Your task to perform on an android device: delete the emails in spam in the gmail app Image 0: 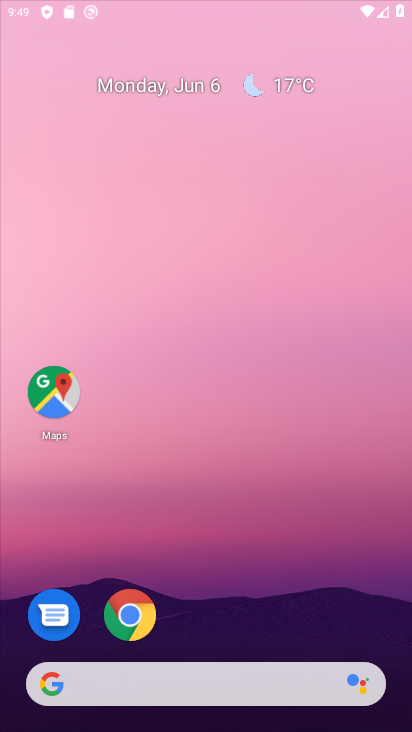
Step 0: press home button
Your task to perform on an android device: delete the emails in spam in the gmail app Image 1: 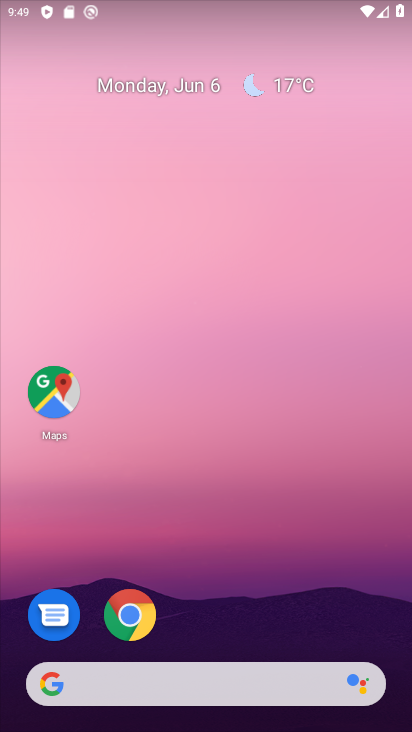
Step 1: drag from (232, 644) to (273, 169)
Your task to perform on an android device: delete the emails in spam in the gmail app Image 2: 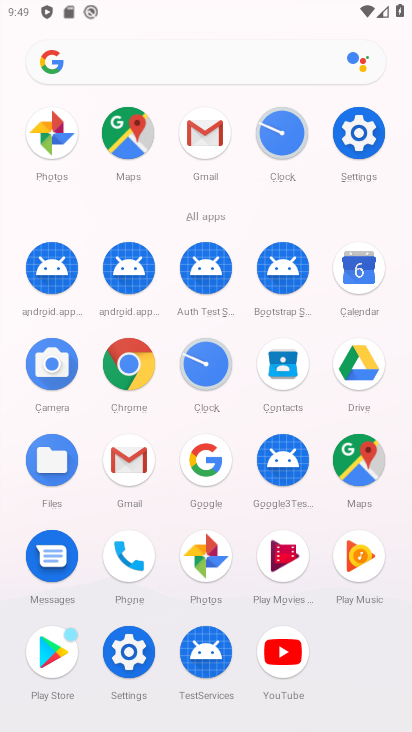
Step 2: click (201, 126)
Your task to perform on an android device: delete the emails in spam in the gmail app Image 3: 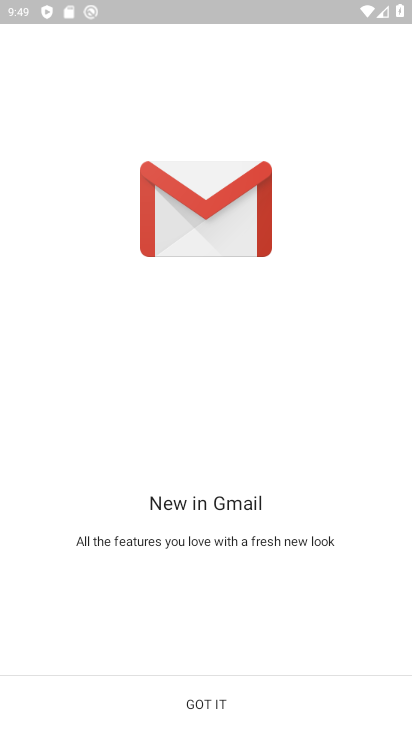
Step 3: click (234, 700)
Your task to perform on an android device: delete the emails in spam in the gmail app Image 4: 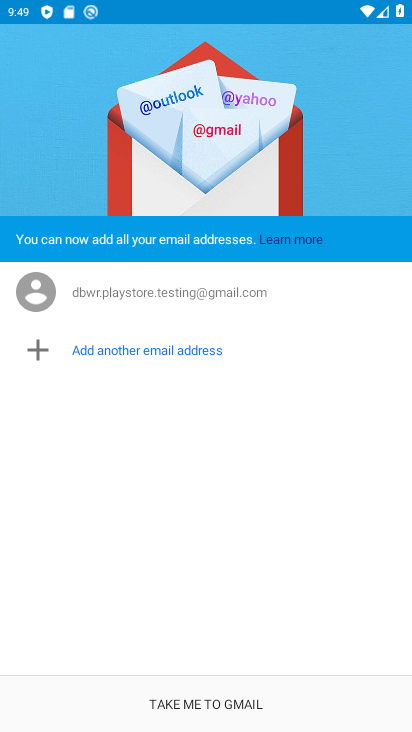
Step 4: click (234, 700)
Your task to perform on an android device: delete the emails in spam in the gmail app Image 5: 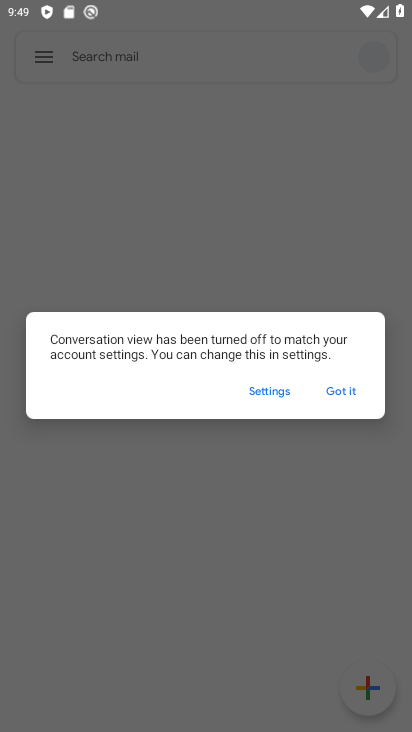
Step 5: click (337, 394)
Your task to perform on an android device: delete the emails in spam in the gmail app Image 6: 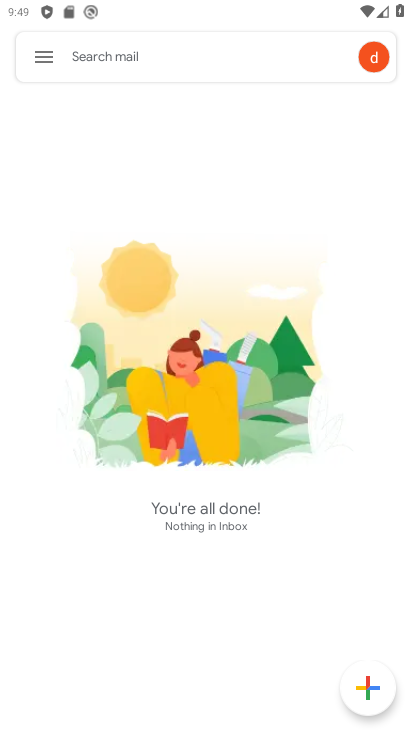
Step 6: click (44, 57)
Your task to perform on an android device: delete the emails in spam in the gmail app Image 7: 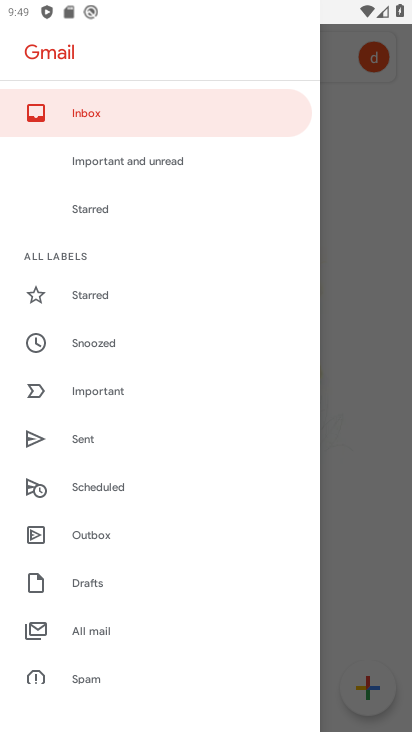
Step 7: click (110, 671)
Your task to perform on an android device: delete the emails in spam in the gmail app Image 8: 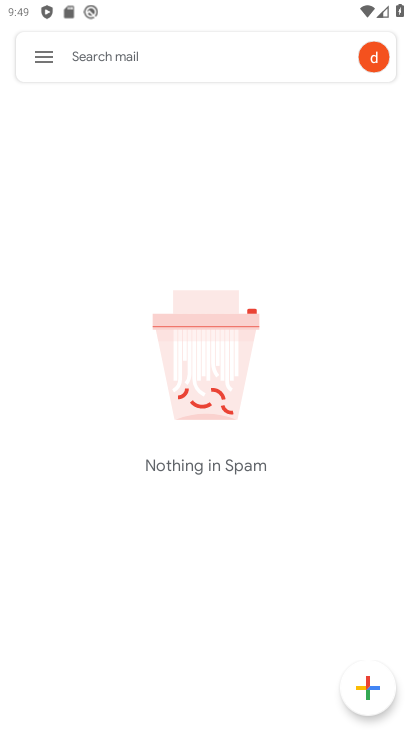
Step 8: task complete